Your task to perform on an android device: Open CNN.com Image 0: 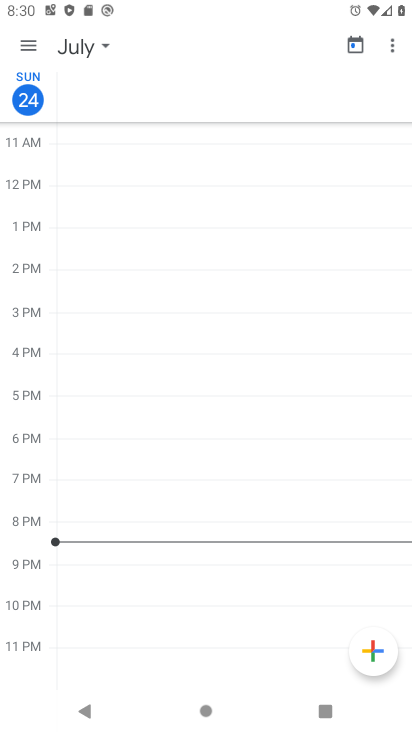
Step 0: press home button
Your task to perform on an android device: Open CNN.com Image 1: 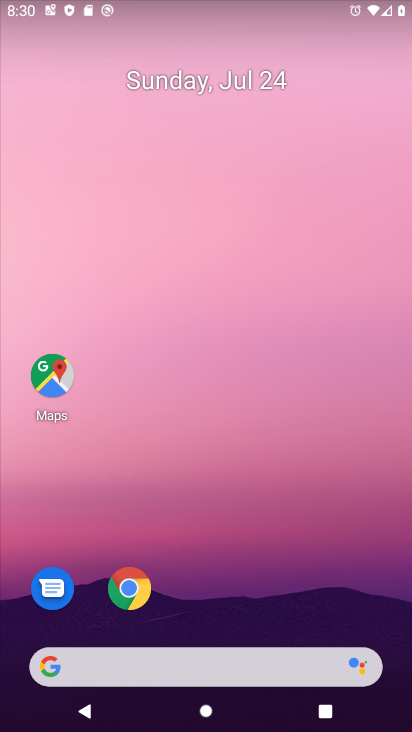
Step 1: drag from (309, 530) to (262, 43)
Your task to perform on an android device: Open CNN.com Image 2: 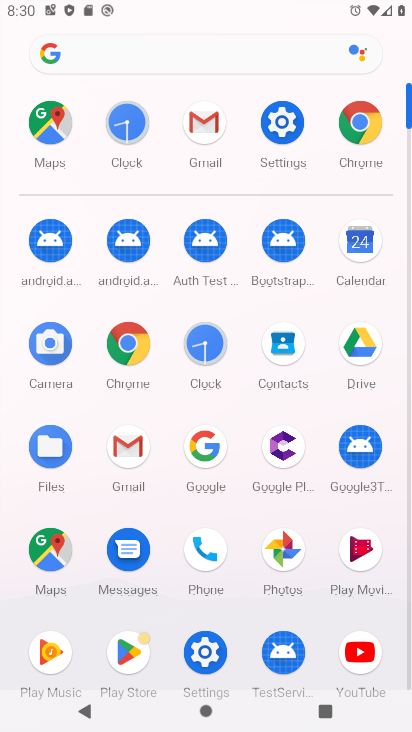
Step 2: click (370, 126)
Your task to perform on an android device: Open CNN.com Image 3: 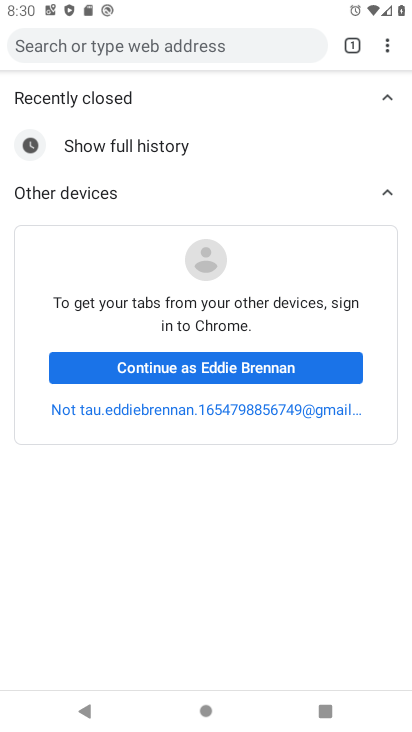
Step 3: click (247, 379)
Your task to perform on an android device: Open CNN.com Image 4: 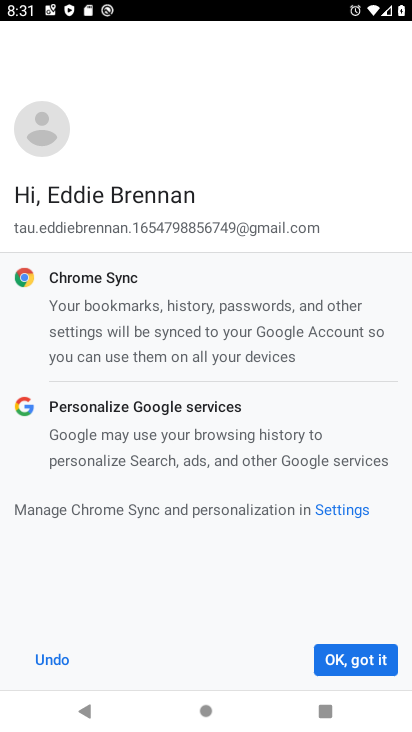
Step 4: click (359, 671)
Your task to perform on an android device: Open CNN.com Image 5: 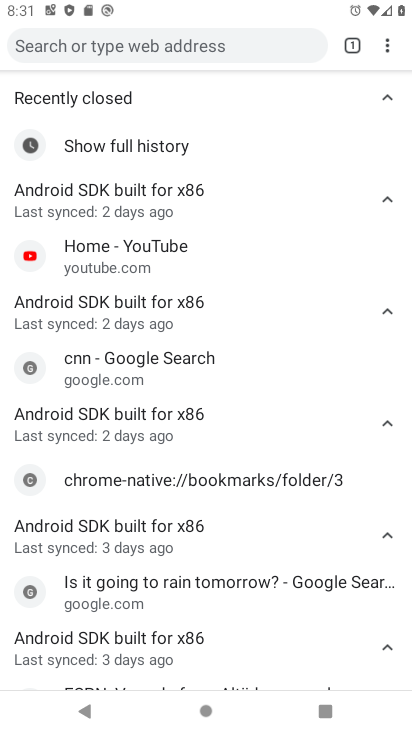
Step 5: click (118, 45)
Your task to perform on an android device: Open CNN.com Image 6: 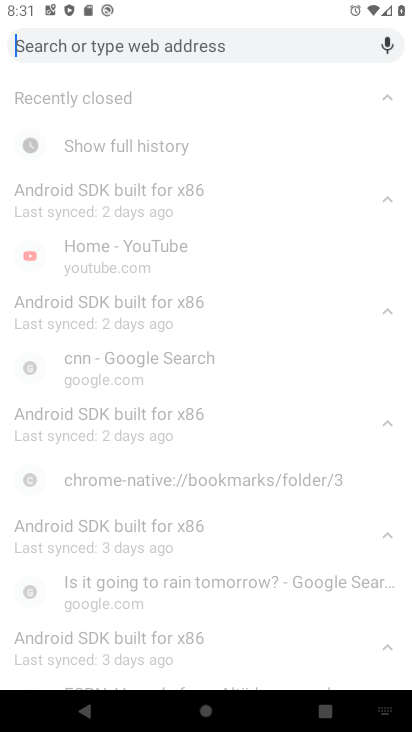
Step 6: type "CNN.com"
Your task to perform on an android device: Open CNN.com Image 7: 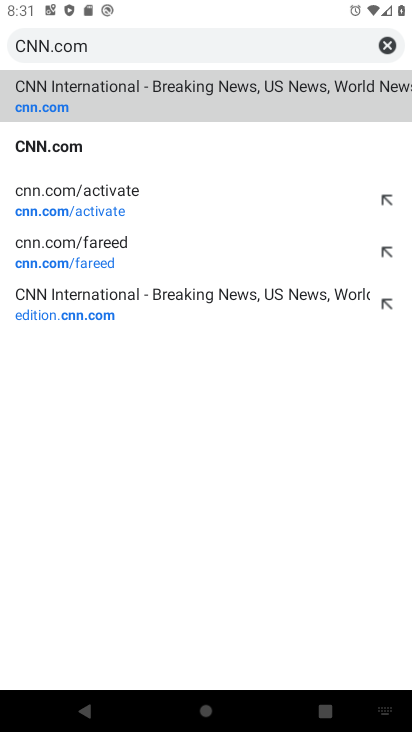
Step 7: click (50, 142)
Your task to perform on an android device: Open CNN.com Image 8: 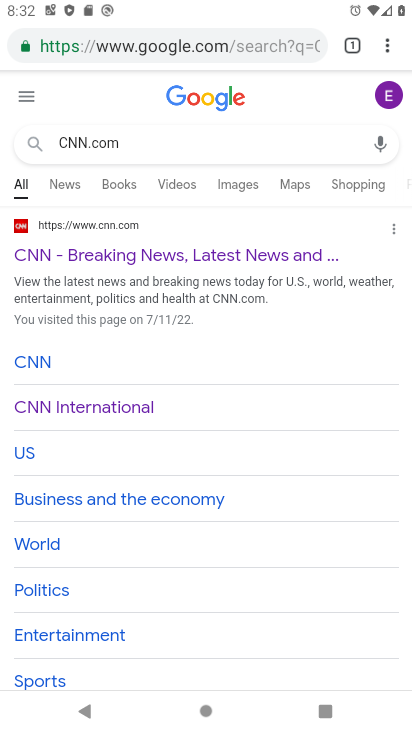
Step 8: click (70, 253)
Your task to perform on an android device: Open CNN.com Image 9: 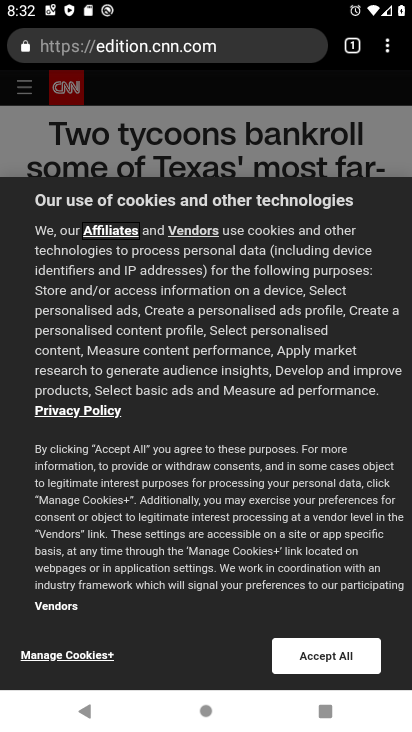
Step 9: task complete